Your task to perform on an android device: Show me the alarms in the clock app Image 0: 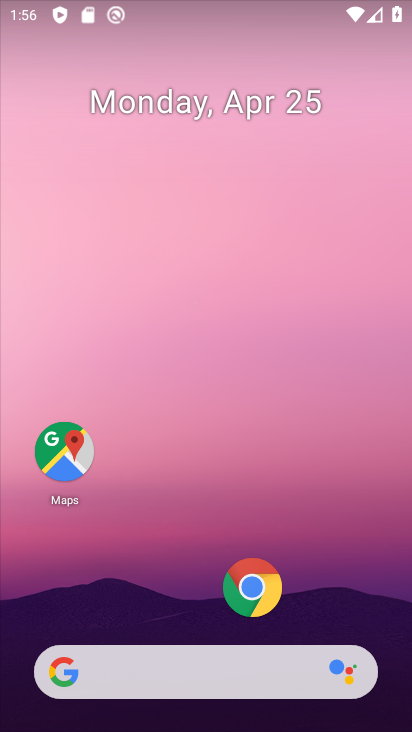
Step 0: drag from (187, 624) to (187, 113)
Your task to perform on an android device: Show me the alarms in the clock app Image 1: 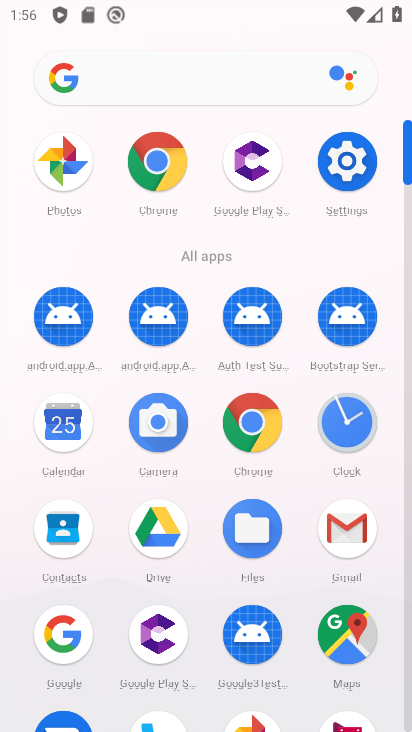
Step 1: click (342, 411)
Your task to perform on an android device: Show me the alarms in the clock app Image 2: 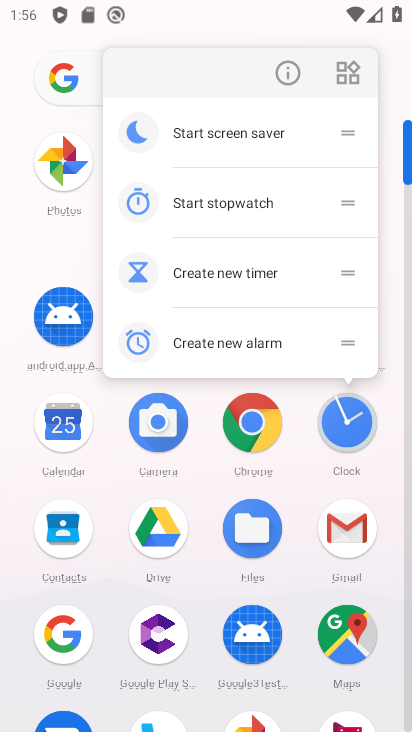
Step 2: click (356, 425)
Your task to perform on an android device: Show me the alarms in the clock app Image 3: 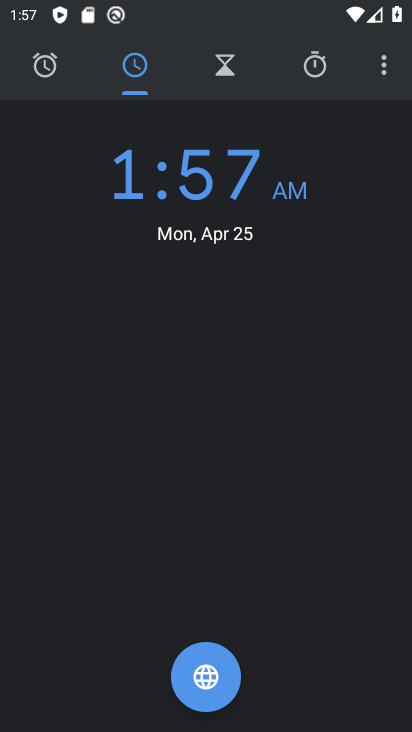
Step 3: click (43, 74)
Your task to perform on an android device: Show me the alarms in the clock app Image 4: 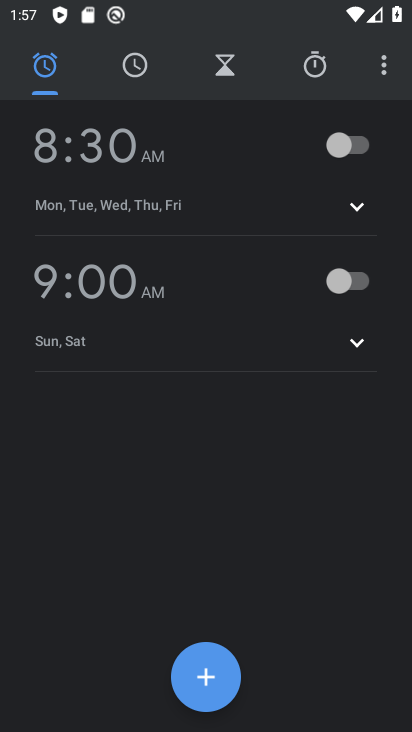
Step 4: task complete